Your task to perform on an android device: open wifi settings Image 0: 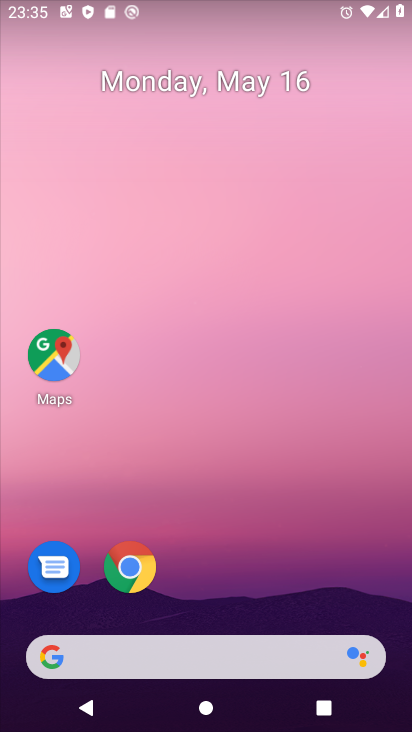
Step 0: drag from (261, 552) to (146, 30)
Your task to perform on an android device: open wifi settings Image 1: 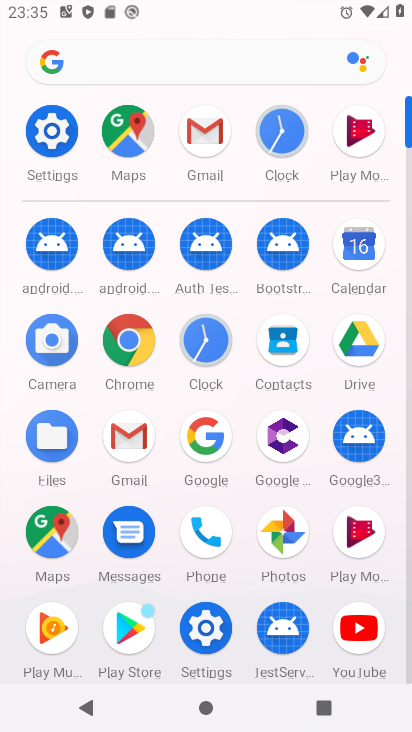
Step 1: click (46, 128)
Your task to perform on an android device: open wifi settings Image 2: 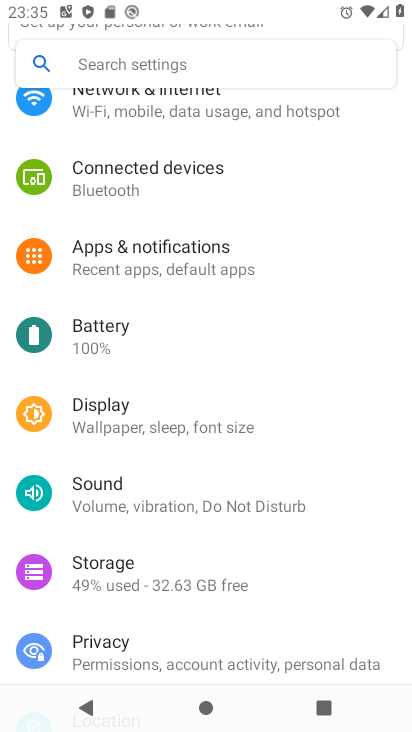
Step 2: drag from (242, 185) to (328, 603)
Your task to perform on an android device: open wifi settings Image 3: 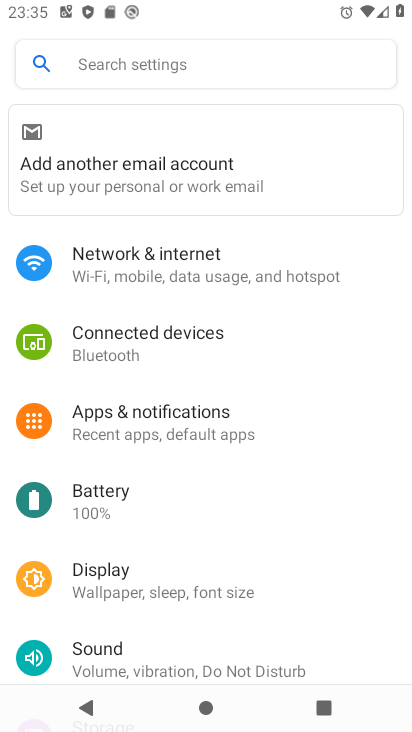
Step 3: click (163, 270)
Your task to perform on an android device: open wifi settings Image 4: 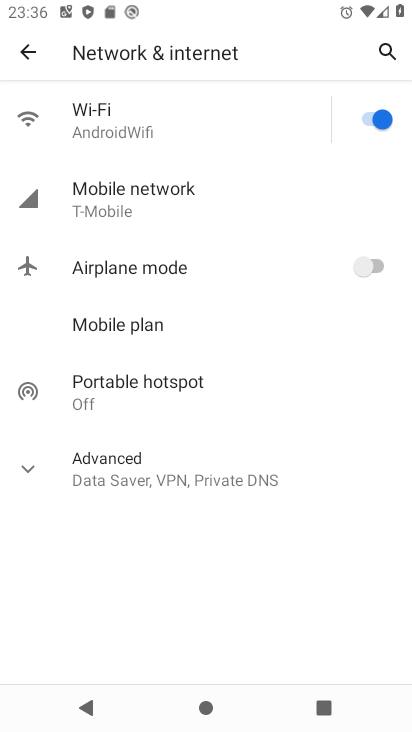
Step 4: click (123, 111)
Your task to perform on an android device: open wifi settings Image 5: 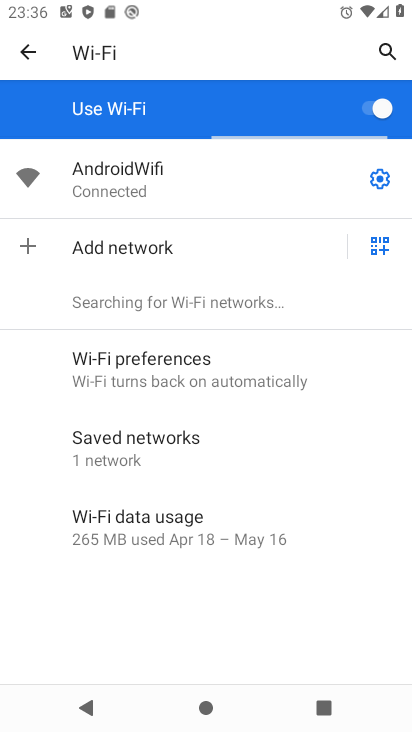
Step 5: task complete